Your task to perform on an android device: turn off notifications settings in the gmail app Image 0: 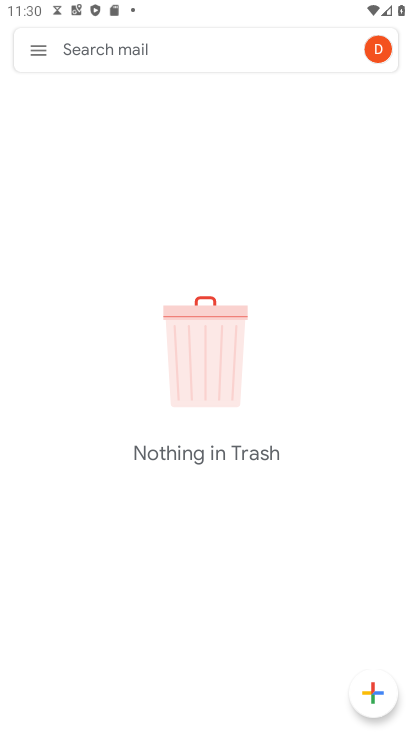
Step 0: press home button
Your task to perform on an android device: turn off notifications settings in the gmail app Image 1: 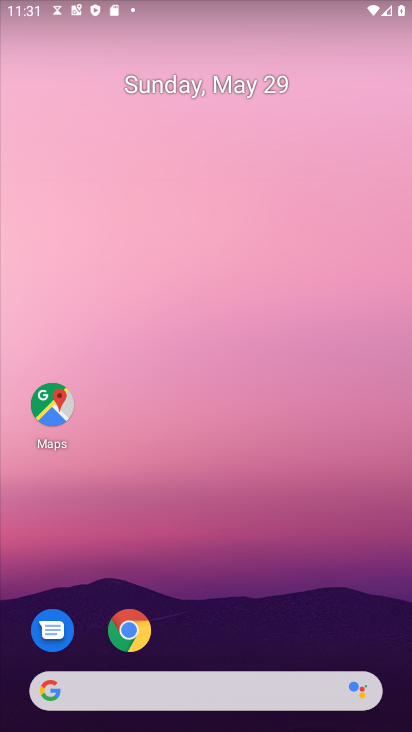
Step 1: drag from (219, 595) to (212, 195)
Your task to perform on an android device: turn off notifications settings in the gmail app Image 2: 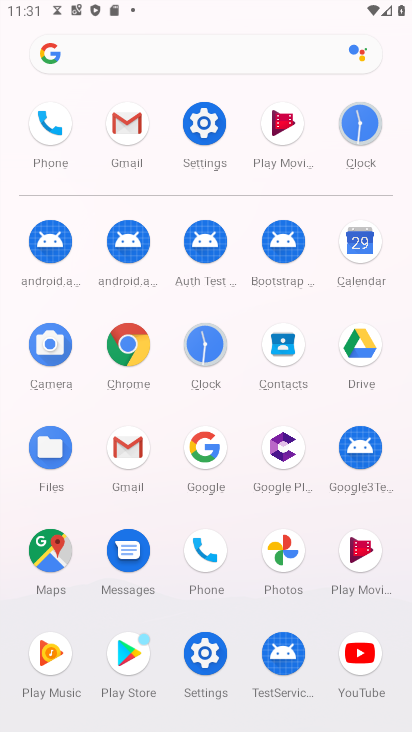
Step 2: click (106, 117)
Your task to perform on an android device: turn off notifications settings in the gmail app Image 3: 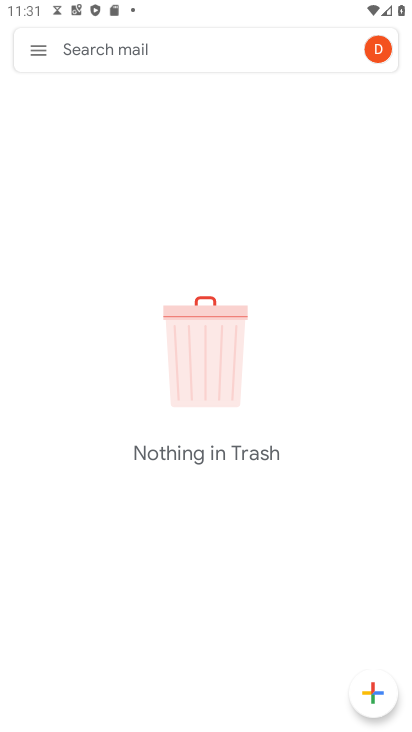
Step 3: click (48, 35)
Your task to perform on an android device: turn off notifications settings in the gmail app Image 4: 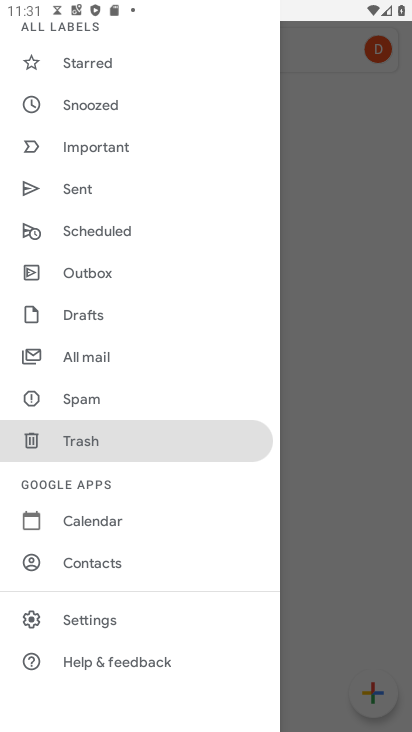
Step 4: click (85, 606)
Your task to perform on an android device: turn off notifications settings in the gmail app Image 5: 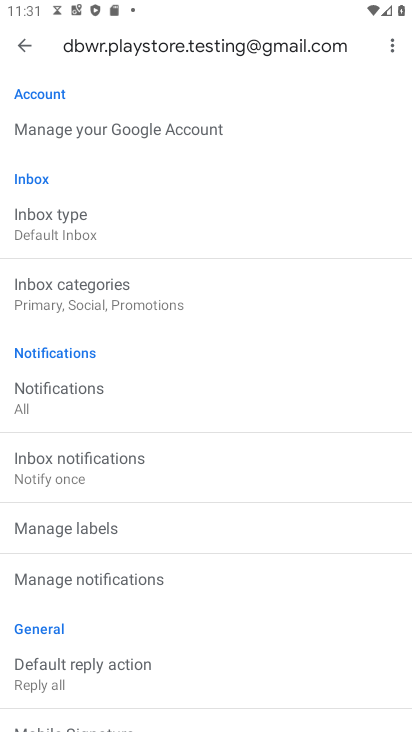
Step 5: click (127, 383)
Your task to perform on an android device: turn off notifications settings in the gmail app Image 6: 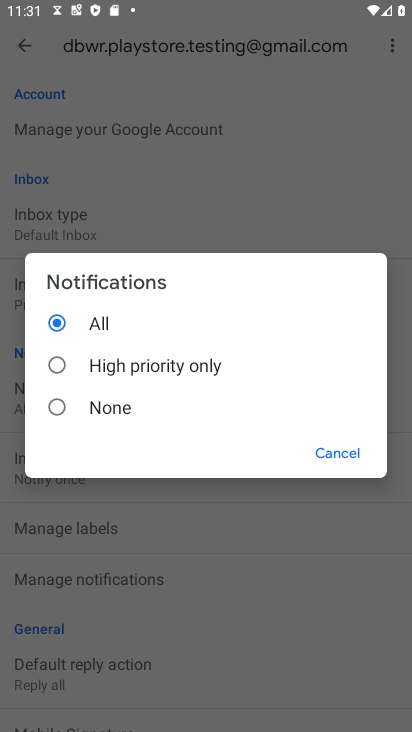
Step 6: click (81, 401)
Your task to perform on an android device: turn off notifications settings in the gmail app Image 7: 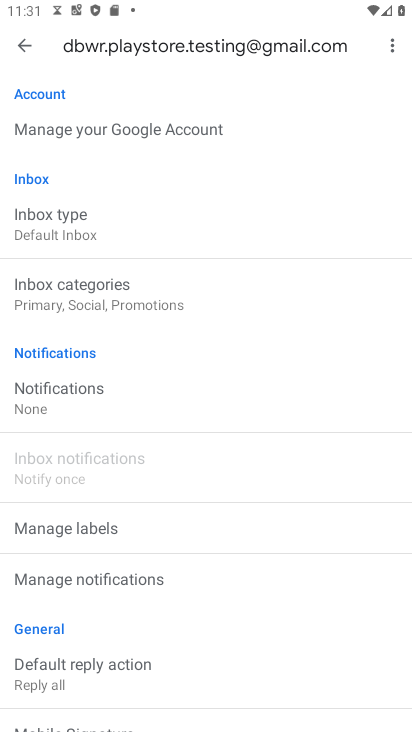
Step 7: task complete